Your task to perform on an android device: turn off sleep mode Image 0: 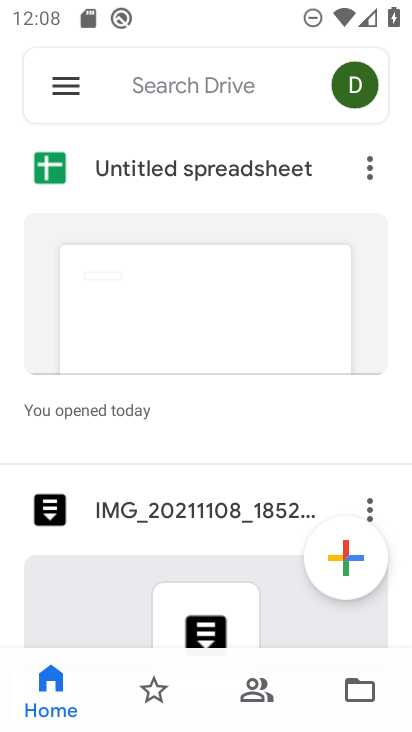
Step 0: press home button
Your task to perform on an android device: turn off sleep mode Image 1: 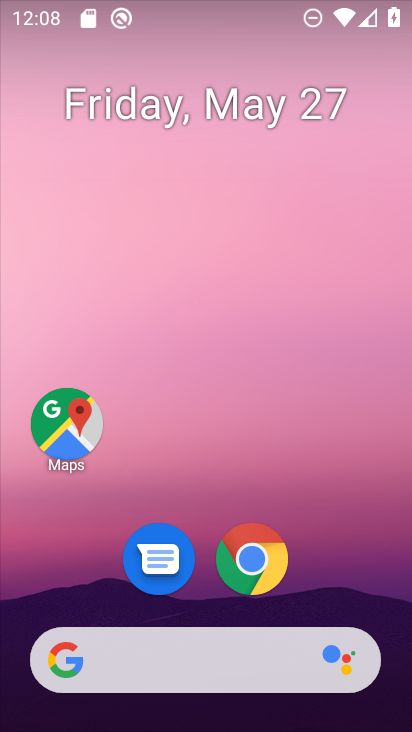
Step 1: drag from (361, 528) to (408, 45)
Your task to perform on an android device: turn off sleep mode Image 2: 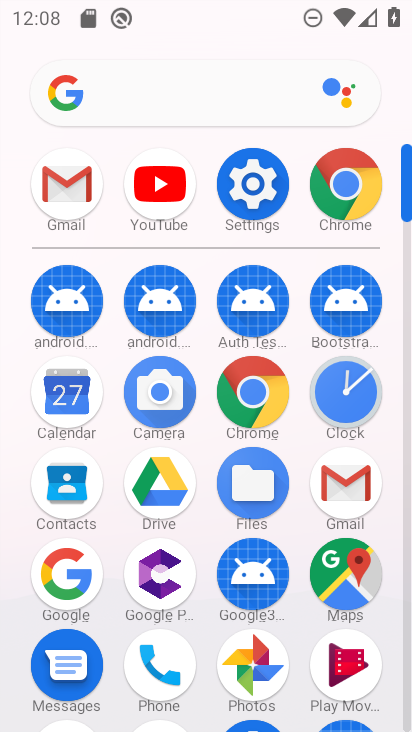
Step 2: click (232, 159)
Your task to perform on an android device: turn off sleep mode Image 3: 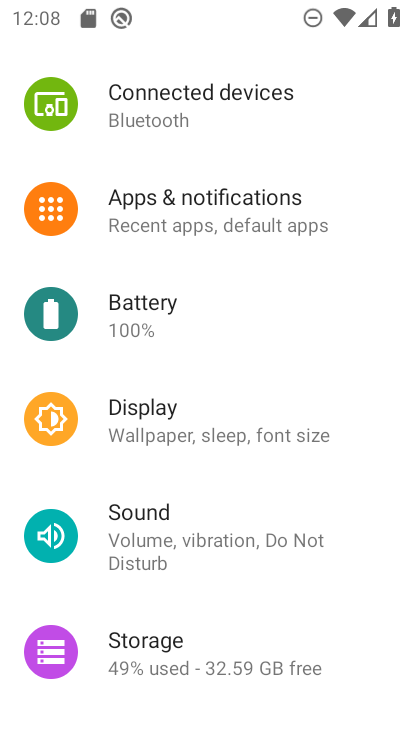
Step 3: click (176, 434)
Your task to perform on an android device: turn off sleep mode Image 4: 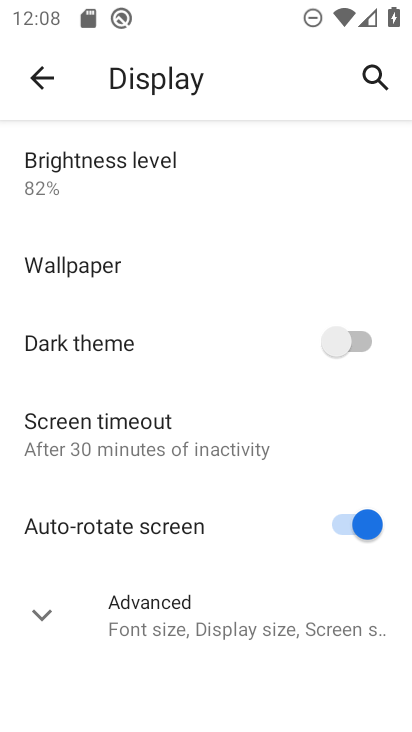
Step 4: click (142, 638)
Your task to perform on an android device: turn off sleep mode Image 5: 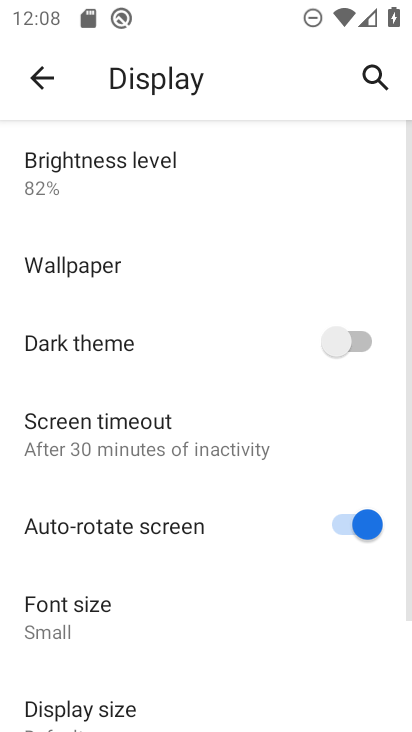
Step 5: task complete